Your task to perform on an android device: Open notification settings Image 0: 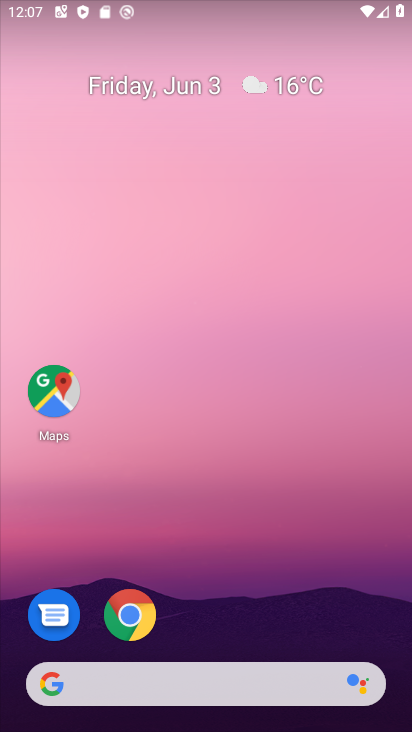
Step 0: drag from (202, 623) to (241, 311)
Your task to perform on an android device: Open notification settings Image 1: 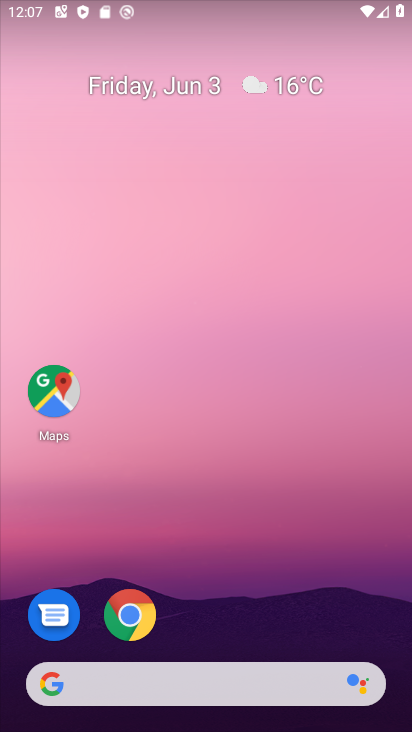
Step 1: drag from (267, 652) to (306, 218)
Your task to perform on an android device: Open notification settings Image 2: 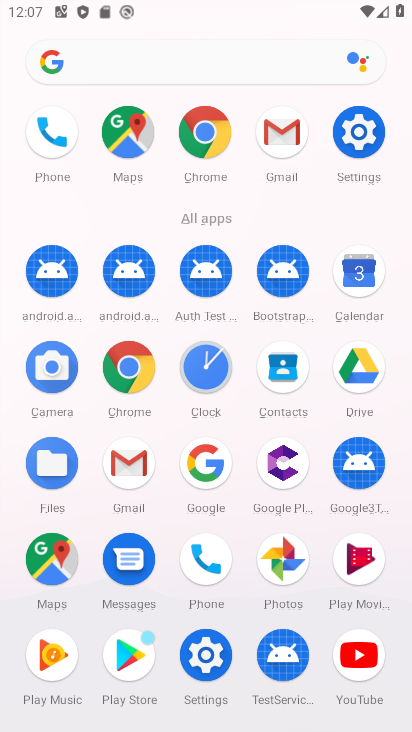
Step 2: click (353, 125)
Your task to perform on an android device: Open notification settings Image 3: 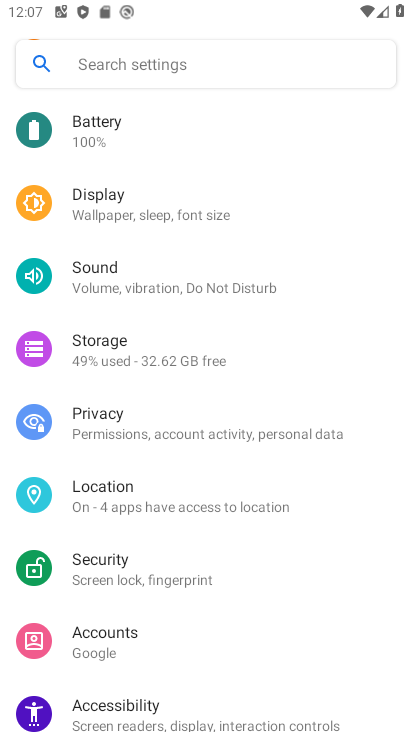
Step 3: drag from (174, 149) to (174, 561)
Your task to perform on an android device: Open notification settings Image 4: 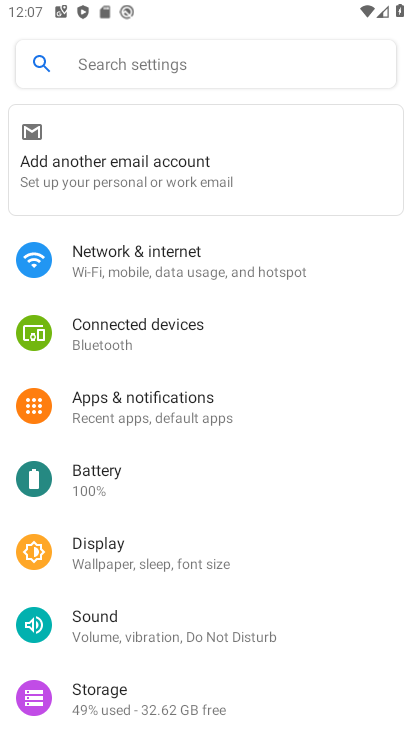
Step 4: click (162, 412)
Your task to perform on an android device: Open notification settings Image 5: 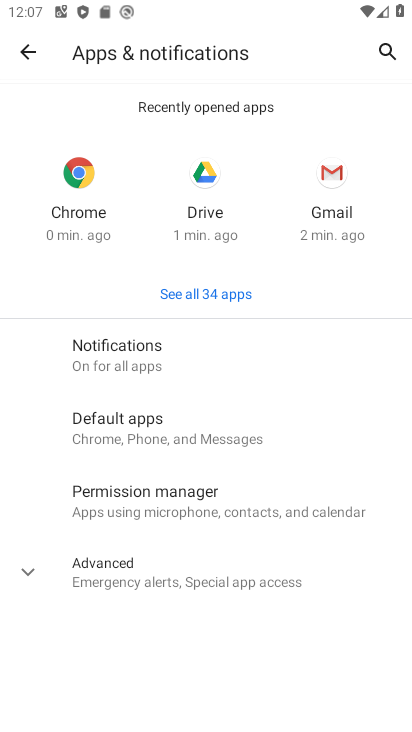
Step 5: click (147, 370)
Your task to perform on an android device: Open notification settings Image 6: 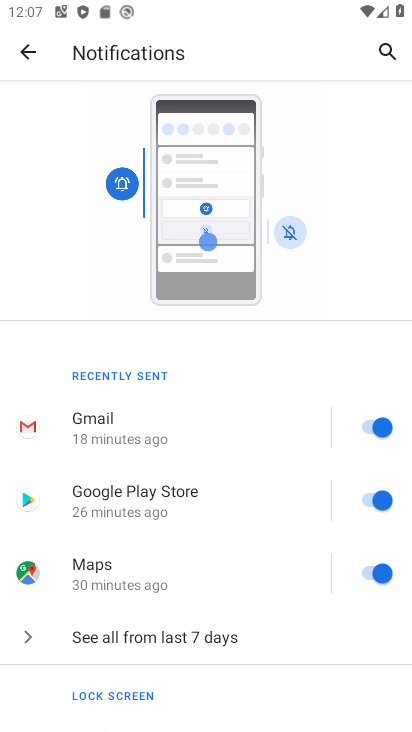
Step 6: task complete